Your task to perform on an android device: check google app version Image 0: 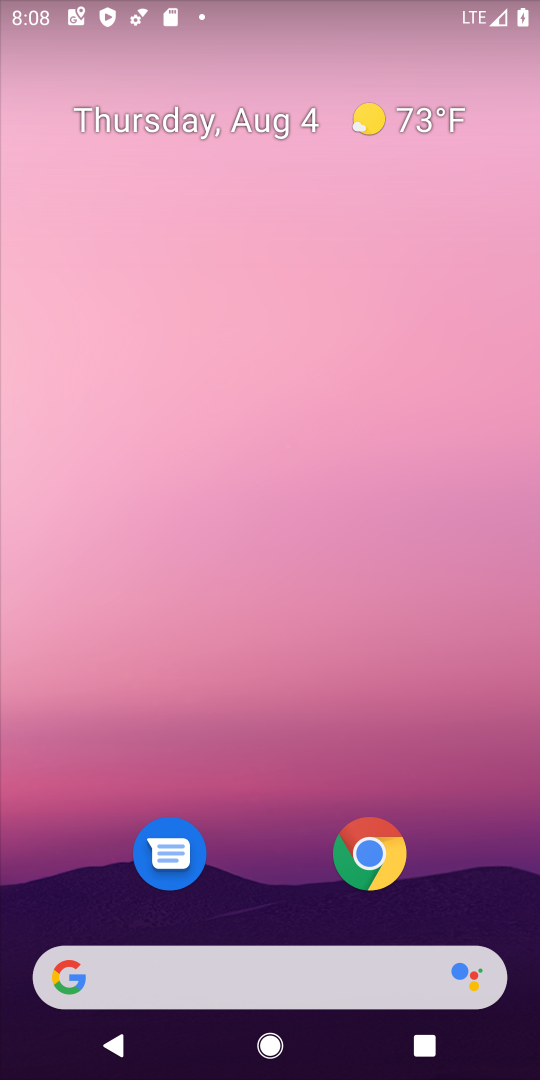
Step 0: drag from (325, 869) to (382, 431)
Your task to perform on an android device: check google app version Image 1: 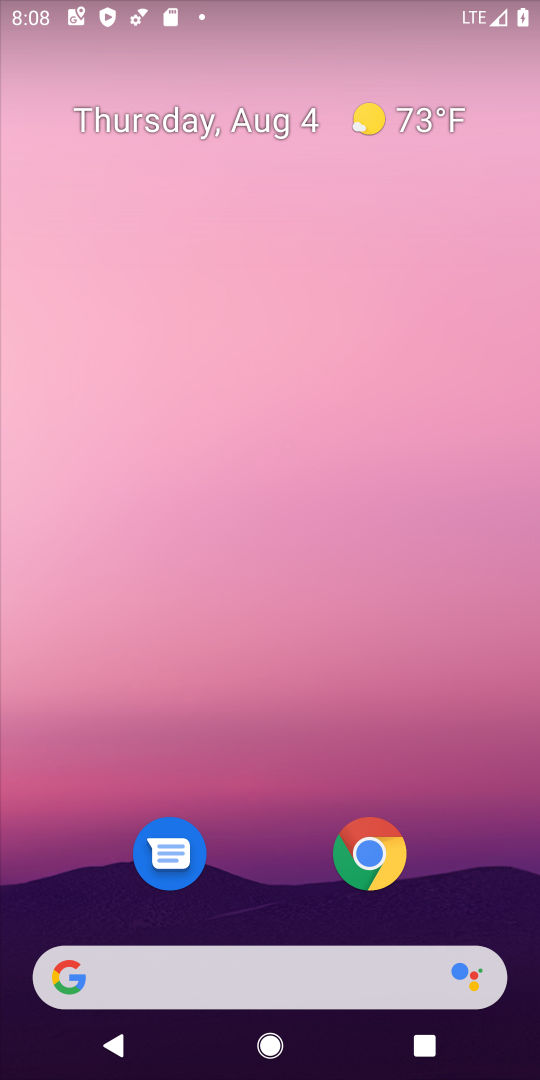
Step 1: drag from (248, 916) to (248, 412)
Your task to perform on an android device: check google app version Image 2: 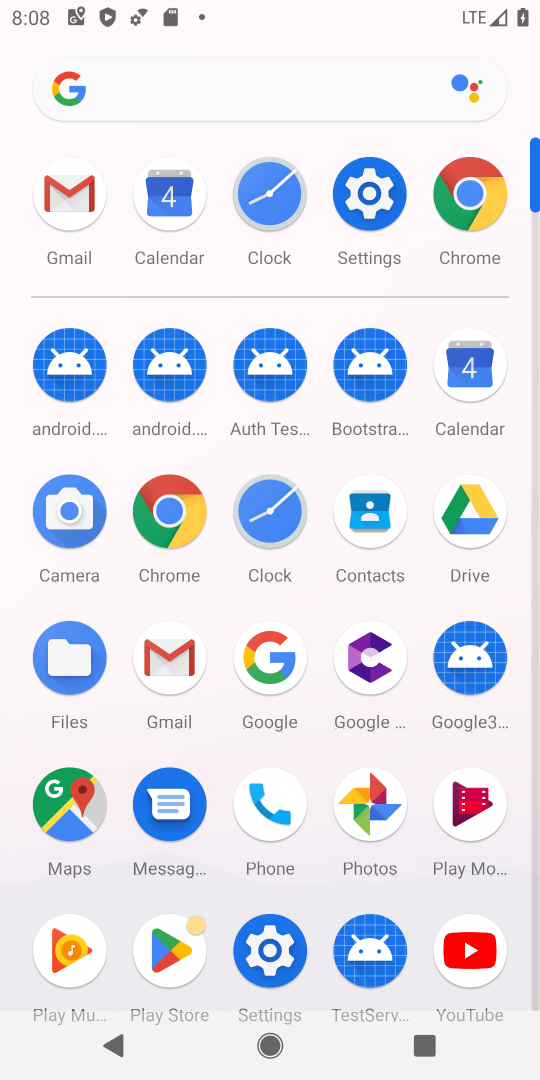
Step 2: click (282, 657)
Your task to perform on an android device: check google app version Image 3: 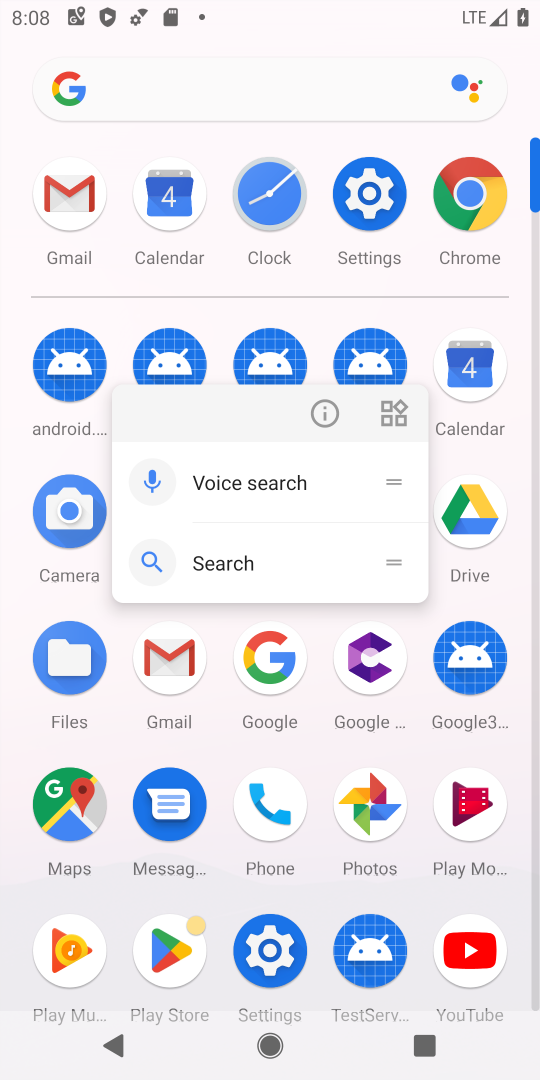
Step 3: click (325, 420)
Your task to perform on an android device: check google app version Image 4: 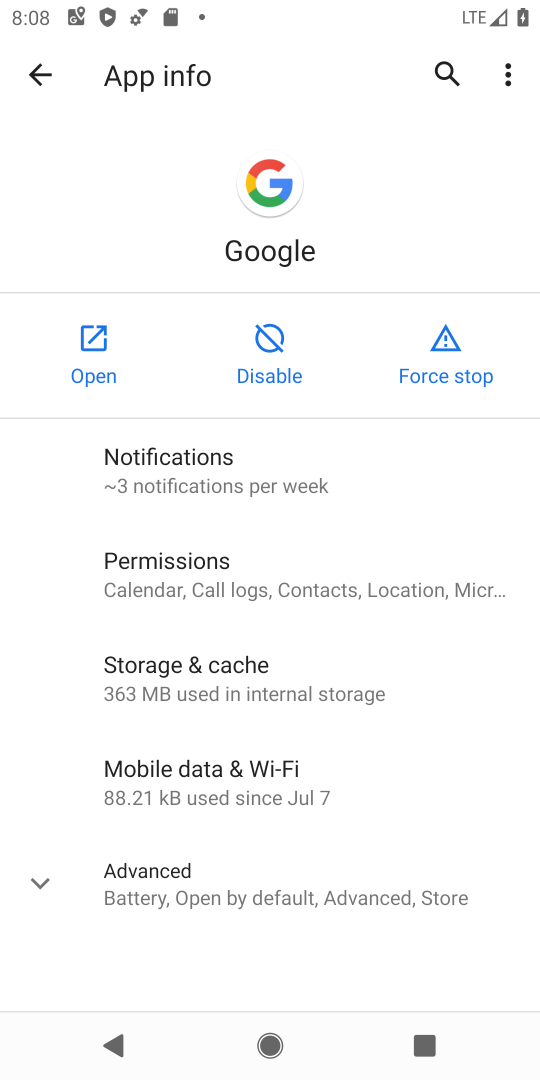
Step 4: task complete